Your task to perform on an android device: turn pop-ups off in chrome Image 0: 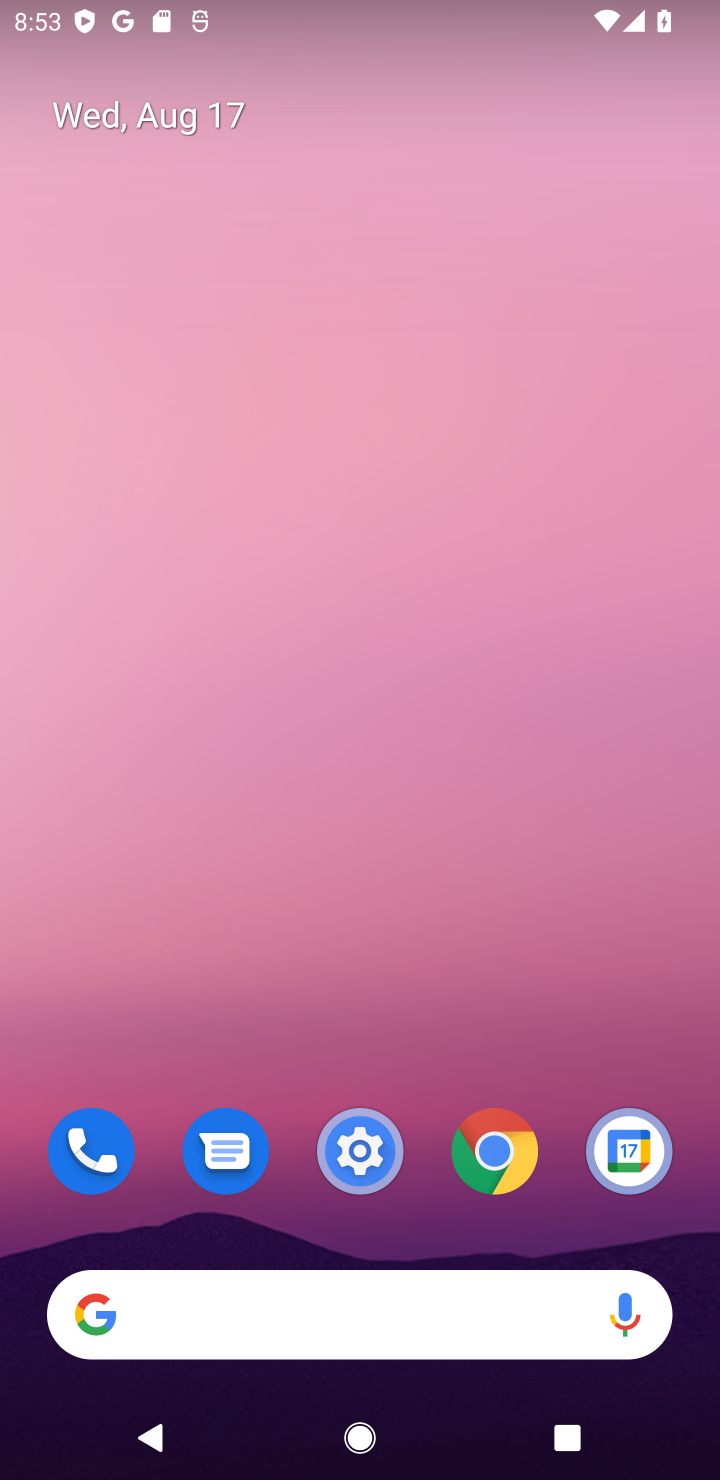
Step 0: click (491, 1150)
Your task to perform on an android device: turn pop-ups off in chrome Image 1: 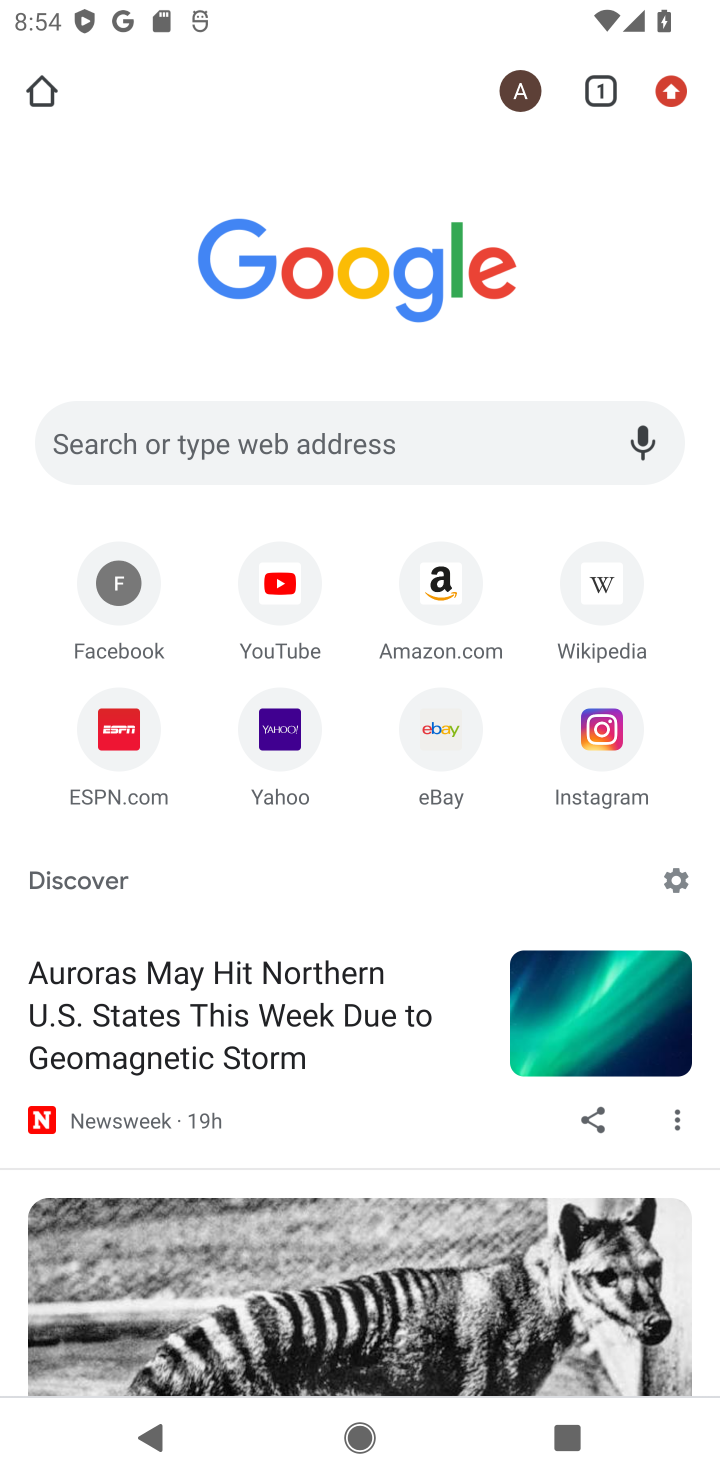
Step 1: click (661, 85)
Your task to perform on an android device: turn pop-ups off in chrome Image 2: 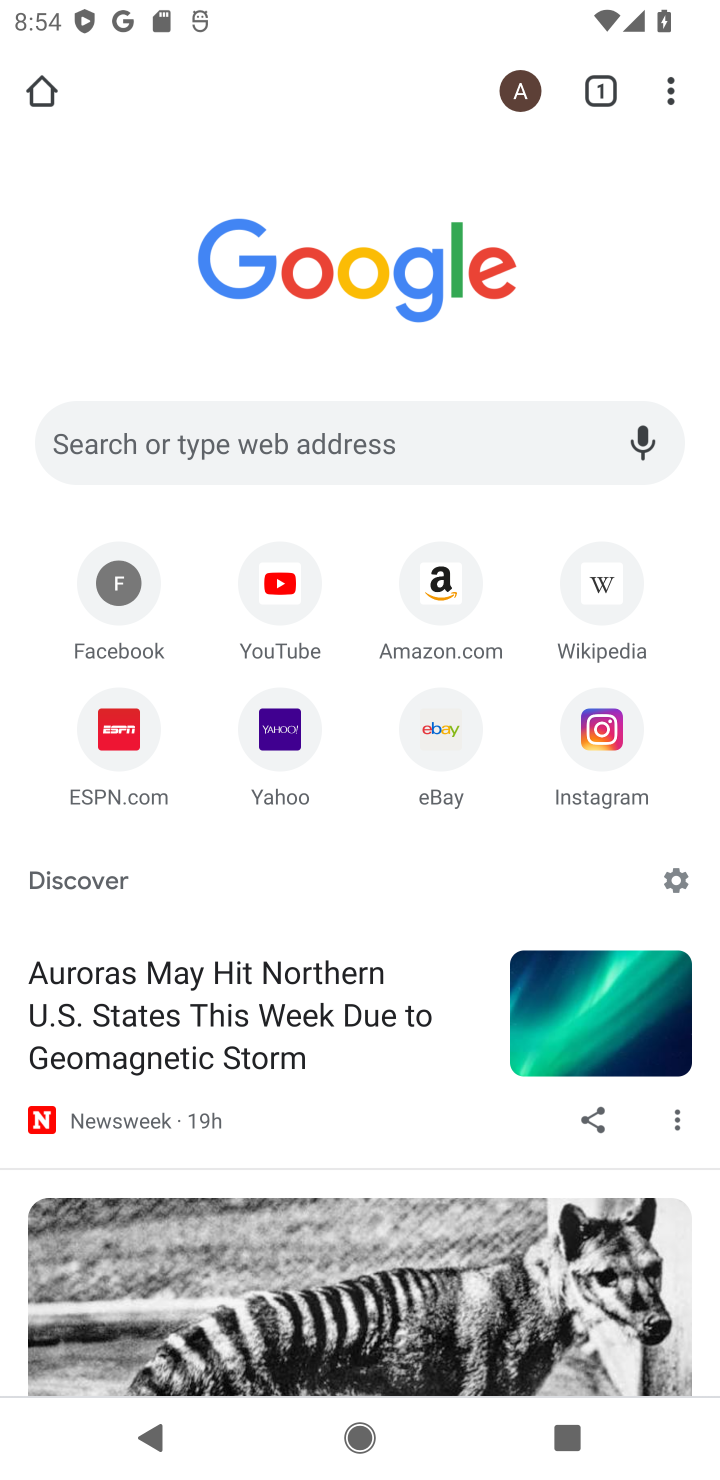
Step 2: click (675, 90)
Your task to perform on an android device: turn pop-ups off in chrome Image 3: 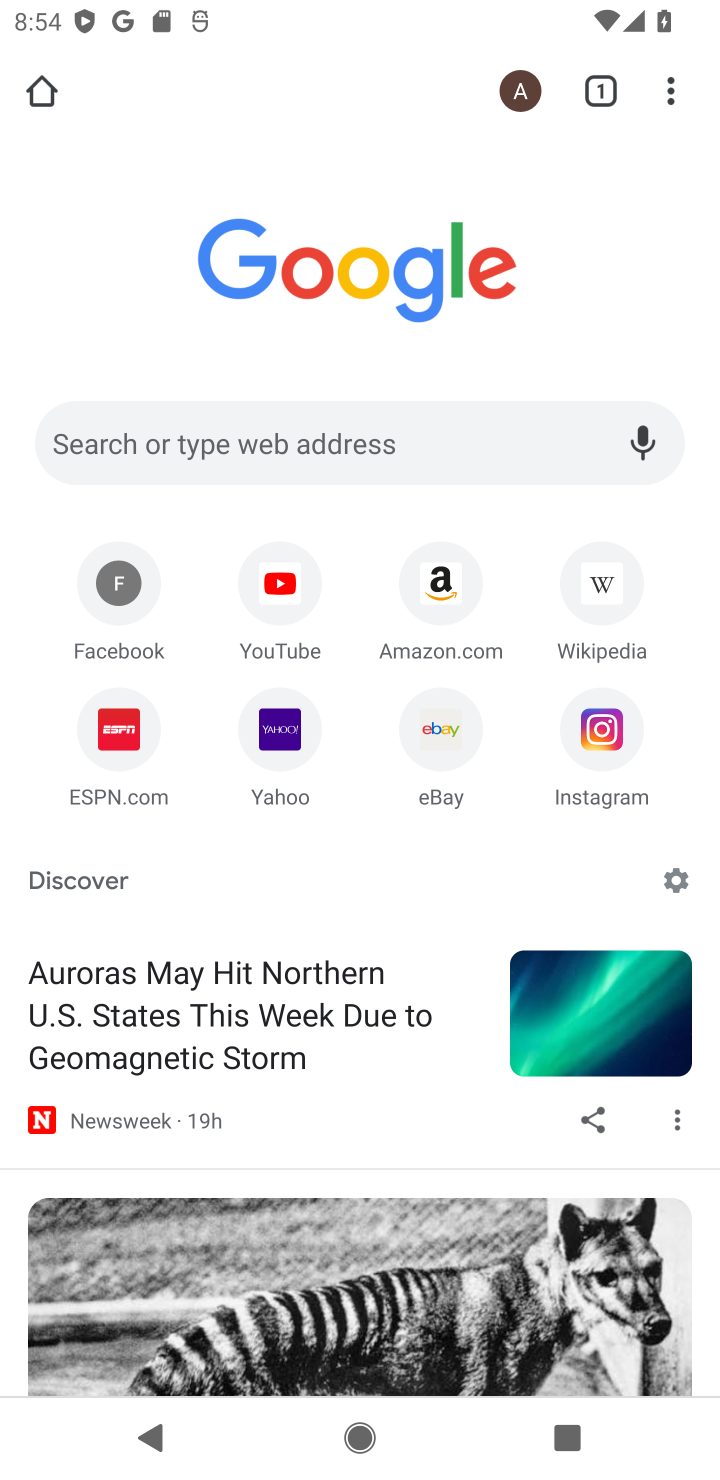
Step 3: click (672, 90)
Your task to perform on an android device: turn pop-ups off in chrome Image 4: 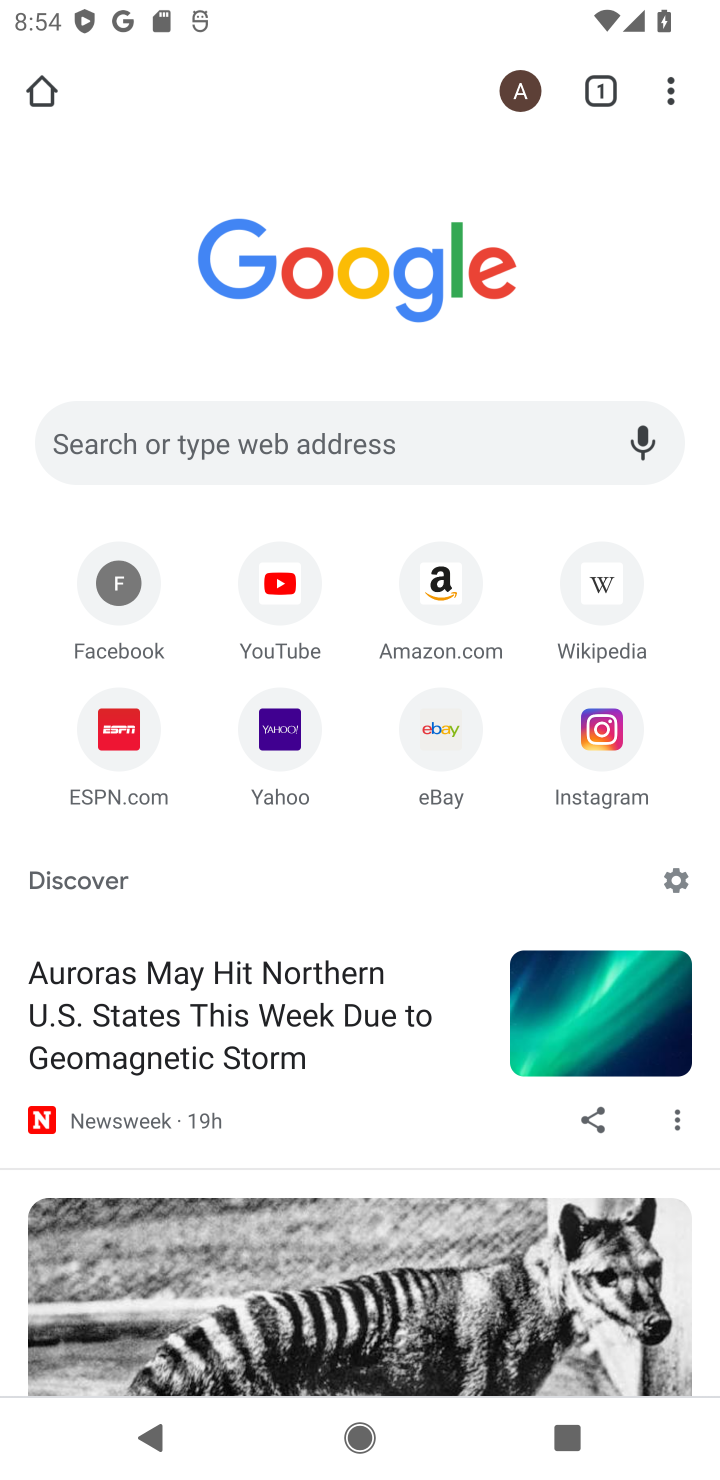
Step 4: click (666, 90)
Your task to perform on an android device: turn pop-ups off in chrome Image 5: 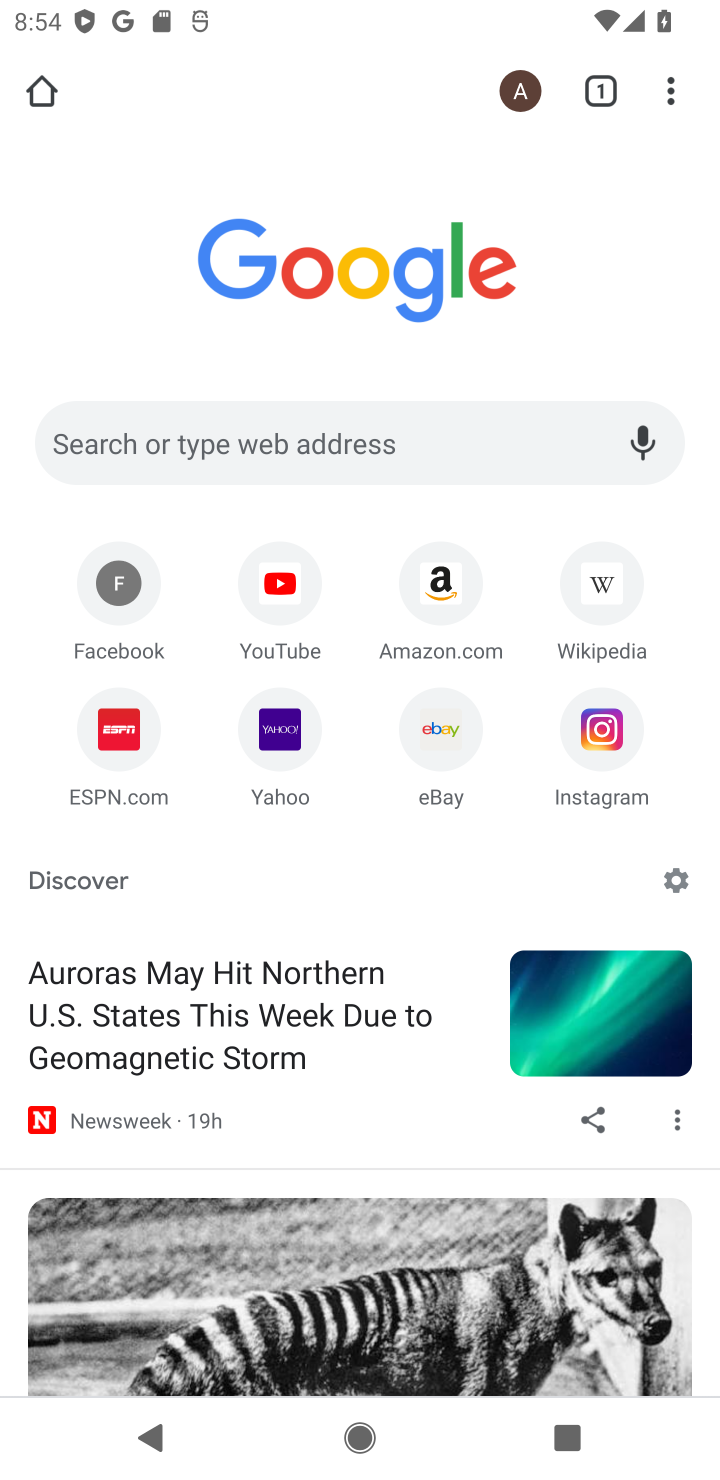
Step 5: task complete